Your task to perform on an android device: turn on translation in the chrome app Image 0: 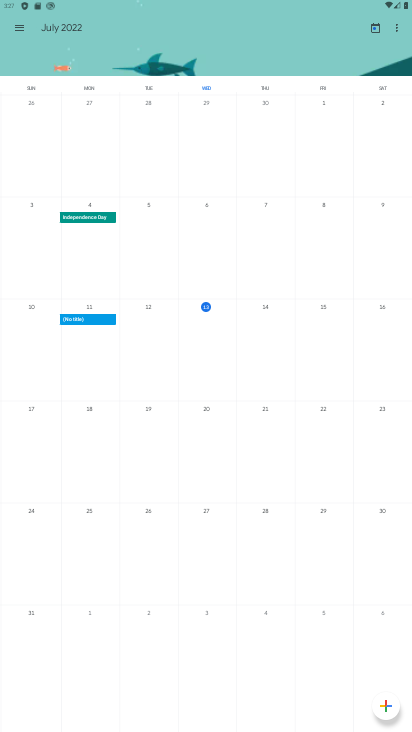
Step 0: press home button
Your task to perform on an android device: turn on translation in the chrome app Image 1: 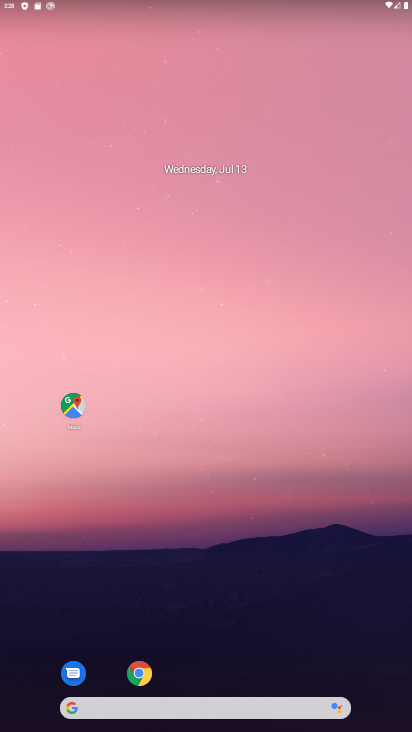
Step 1: click (139, 679)
Your task to perform on an android device: turn on translation in the chrome app Image 2: 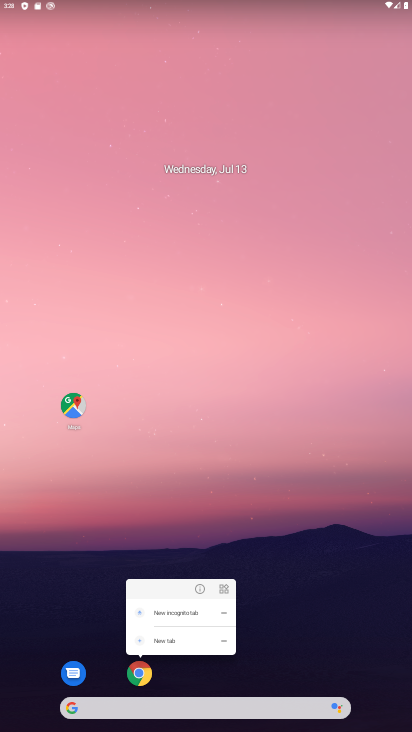
Step 2: click (139, 679)
Your task to perform on an android device: turn on translation in the chrome app Image 3: 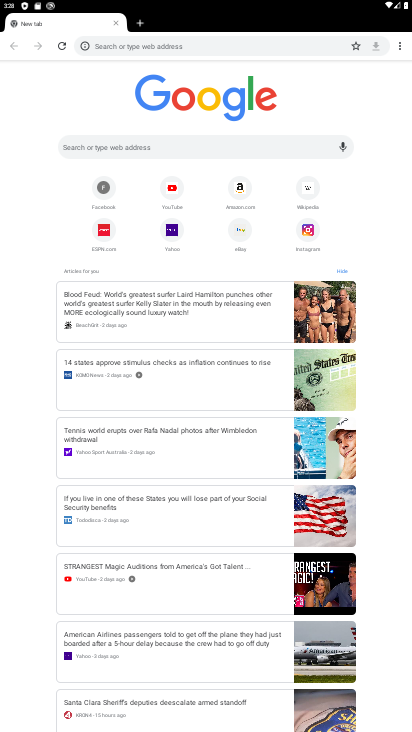
Step 3: click (405, 46)
Your task to perform on an android device: turn on translation in the chrome app Image 4: 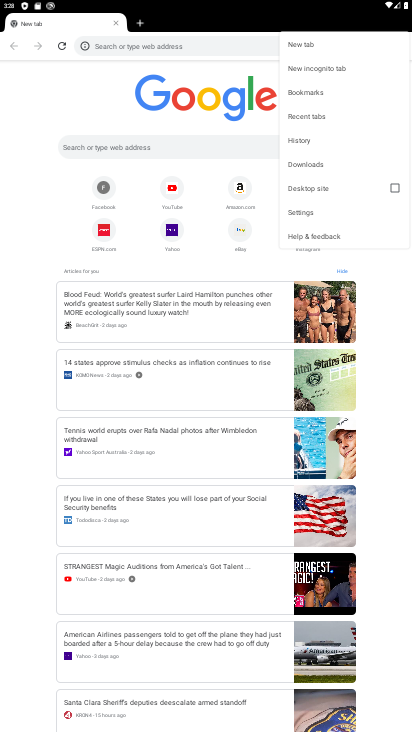
Step 4: click (306, 210)
Your task to perform on an android device: turn on translation in the chrome app Image 5: 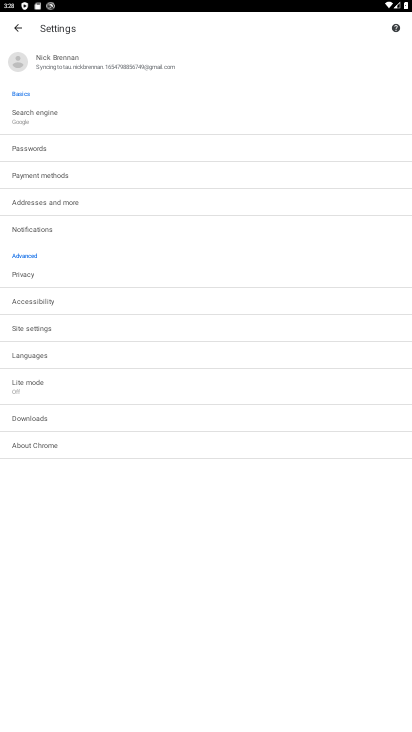
Step 5: click (24, 357)
Your task to perform on an android device: turn on translation in the chrome app Image 6: 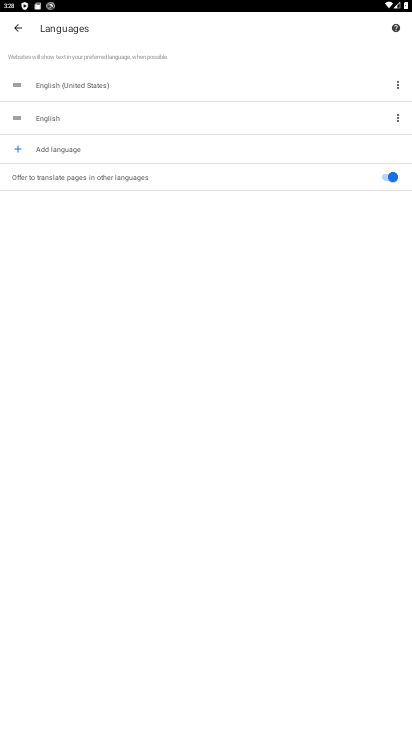
Step 6: task complete